Your task to perform on an android device: change the clock display to show seconds Image 0: 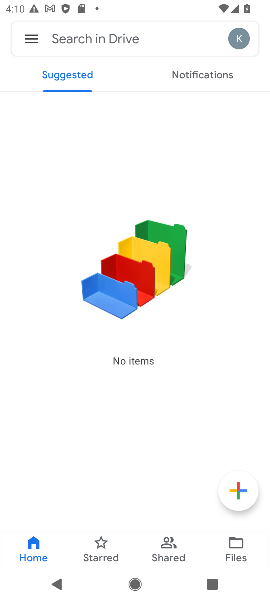
Step 0: press home button
Your task to perform on an android device: change the clock display to show seconds Image 1: 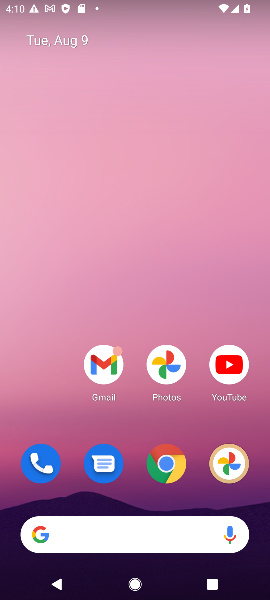
Step 1: drag from (104, 519) to (149, 88)
Your task to perform on an android device: change the clock display to show seconds Image 2: 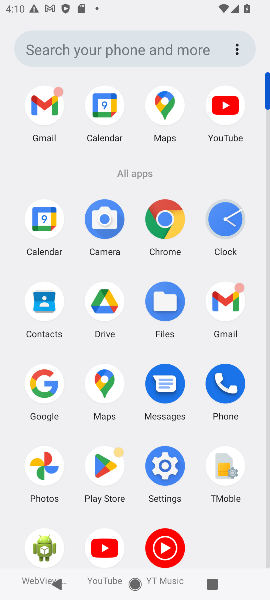
Step 2: click (219, 223)
Your task to perform on an android device: change the clock display to show seconds Image 3: 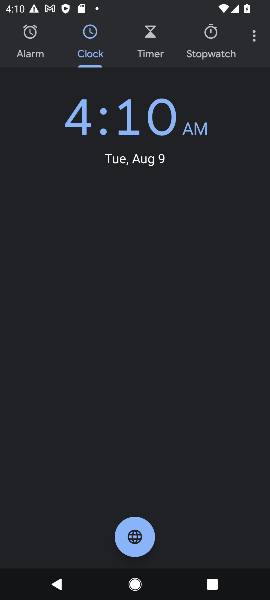
Step 3: click (258, 38)
Your task to perform on an android device: change the clock display to show seconds Image 4: 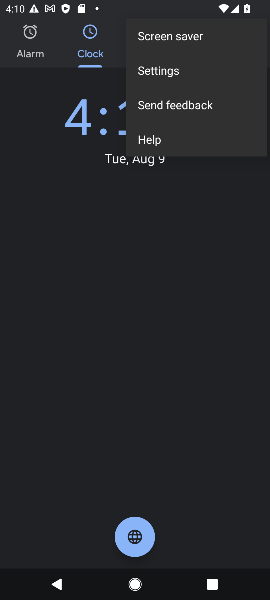
Step 4: click (153, 69)
Your task to perform on an android device: change the clock display to show seconds Image 5: 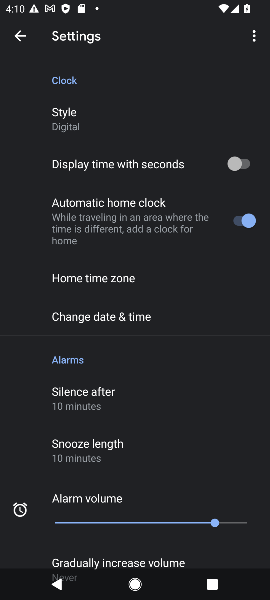
Step 5: click (240, 169)
Your task to perform on an android device: change the clock display to show seconds Image 6: 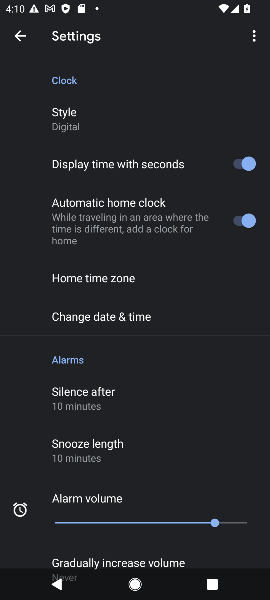
Step 6: task complete